Your task to perform on an android device: remove spam from my inbox in the gmail app Image 0: 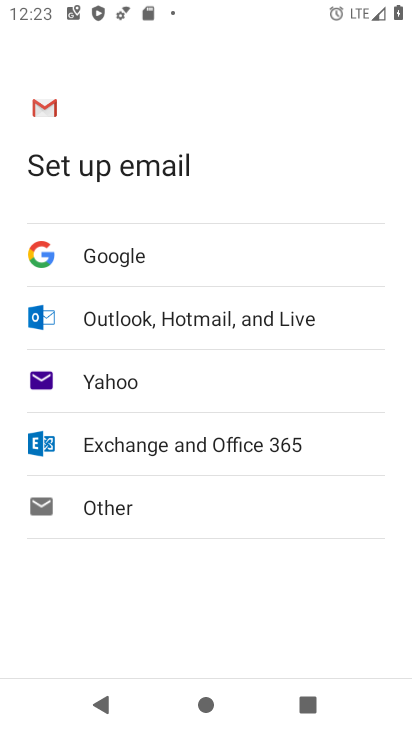
Step 0: press home button
Your task to perform on an android device: remove spam from my inbox in the gmail app Image 1: 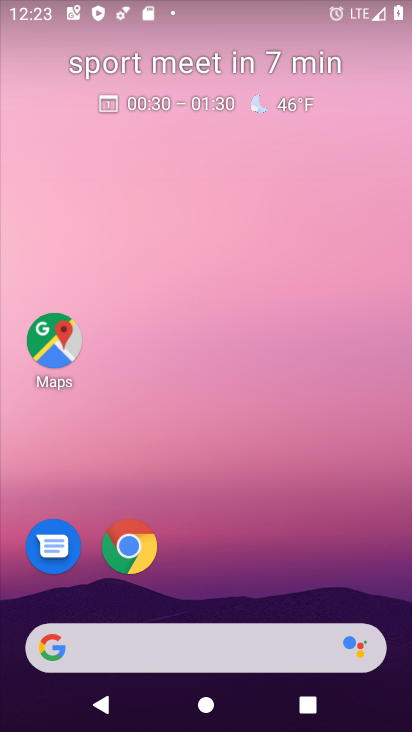
Step 1: drag from (365, 601) to (351, 104)
Your task to perform on an android device: remove spam from my inbox in the gmail app Image 2: 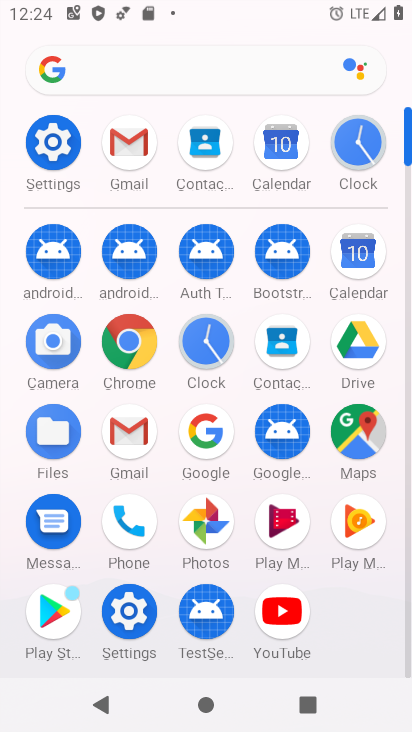
Step 2: click (126, 156)
Your task to perform on an android device: remove spam from my inbox in the gmail app Image 3: 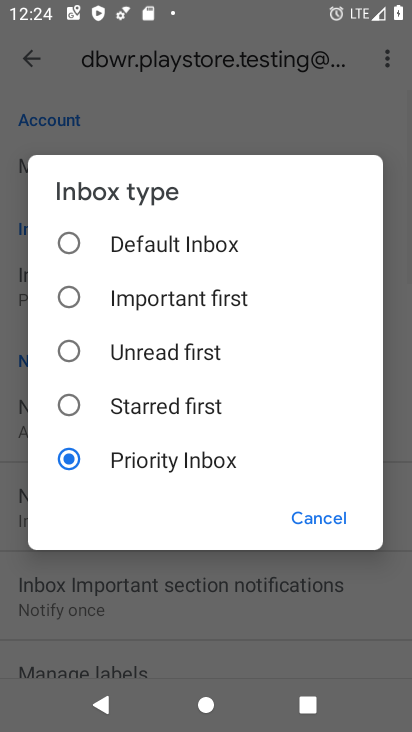
Step 3: click (326, 512)
Your task to perform on an android device: remove spam from my inbox in the gmail app Image 4: 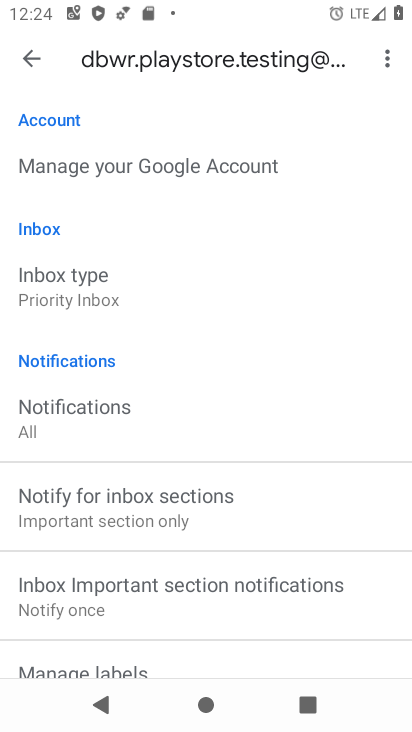
Step 4: click (28, 56)
Your task to perform on an android device: remove spam from my inbox in the gmail app Image 5: 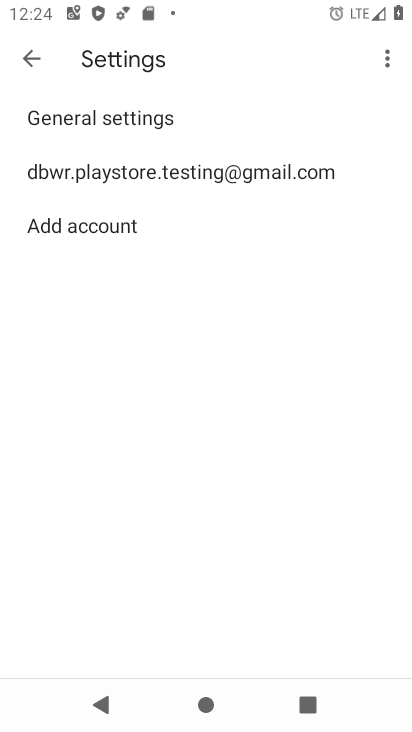
Step 5: click (28, 56)
Your task to perform on an android device: remove spam from my inbox in the gmail app Image 6: 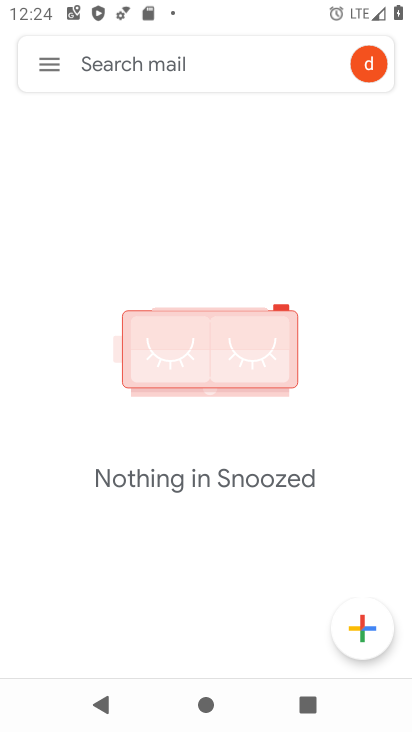
Step 6: click (42, 65)
Your task to perform on an android device: remove spam from my inbox in the gmail app Image 7: 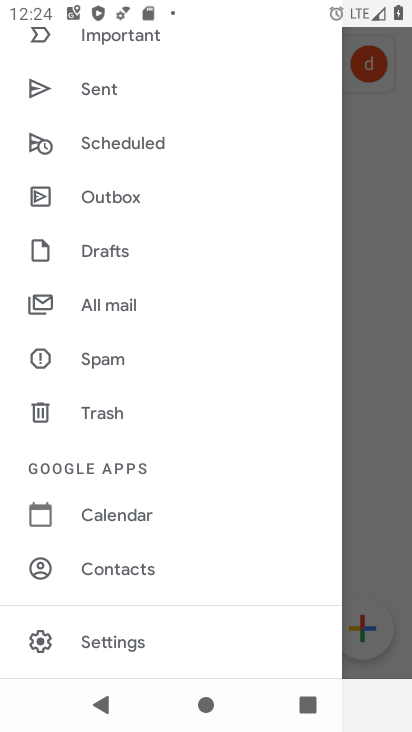
Step 7: click (100, 357)
Your task to perform on an android device: remove spam from my inbox in the gmail app Image 8: 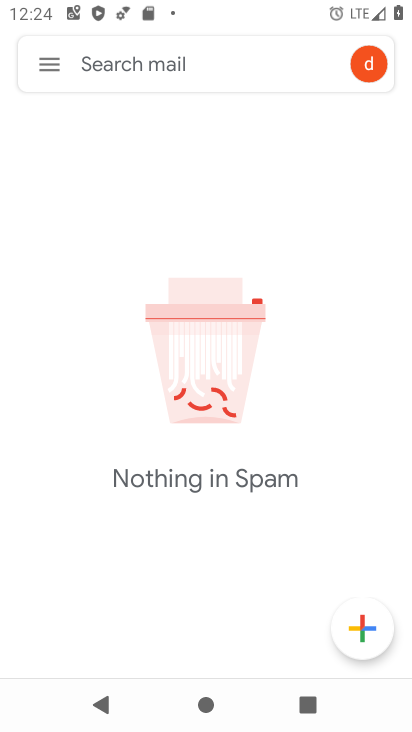
Step 8: task complete